Your task to perform on an android device: Open calendar and show me the second week of next month Image 0: 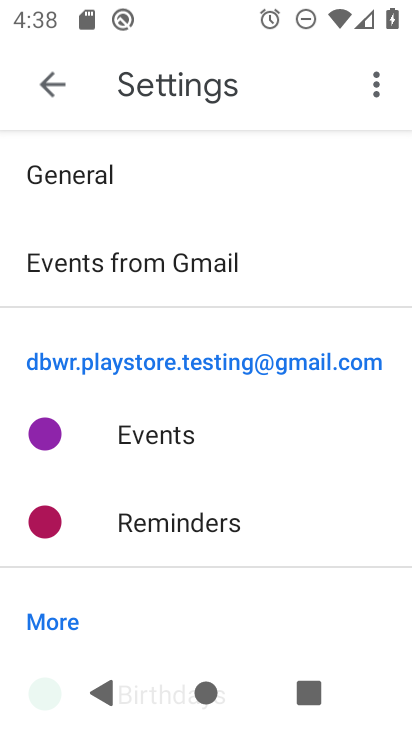
Step 0: press home button
Your task to perform on an android device: Open calendar and show me the second week of next month Image 1: 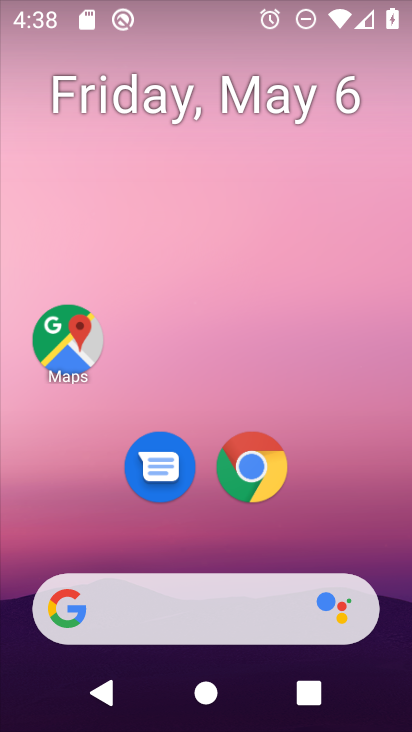
Step 1: drag from (333, 494) to (284, 119)
Your task to perform on an android device: Open calendar and show me the second week of next month Image 2: 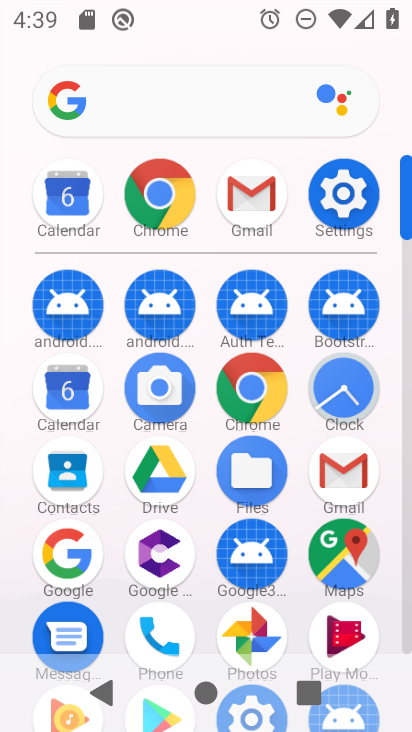
Step 2: click (64, 425)
Your task to perform on an android device: Open calendar and show me the second week of next month Image 3: 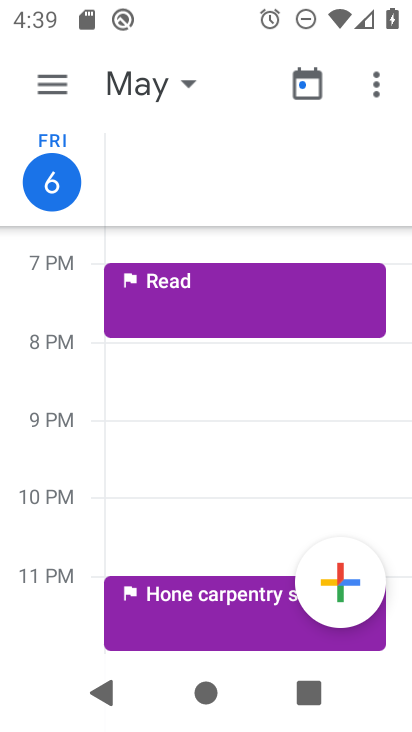
Step 3: click (63, 87)
Your task to perform on an android device: Open calendar and show me the second week of next month Image 4: 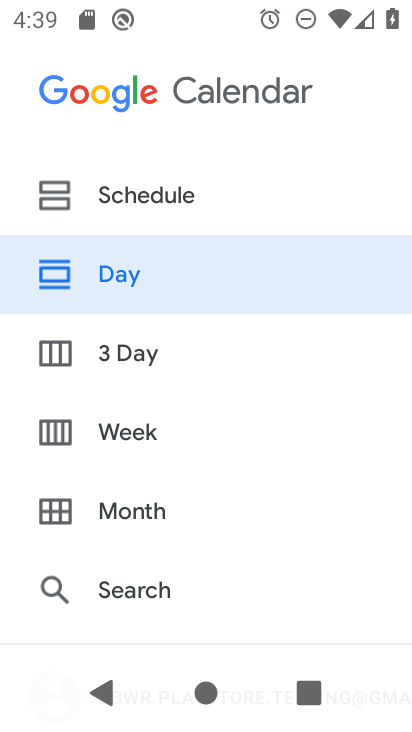
Step 4: click (134, 437)
Your task to perform on an android device: Open calendar and show me the second week of next month Image 5: 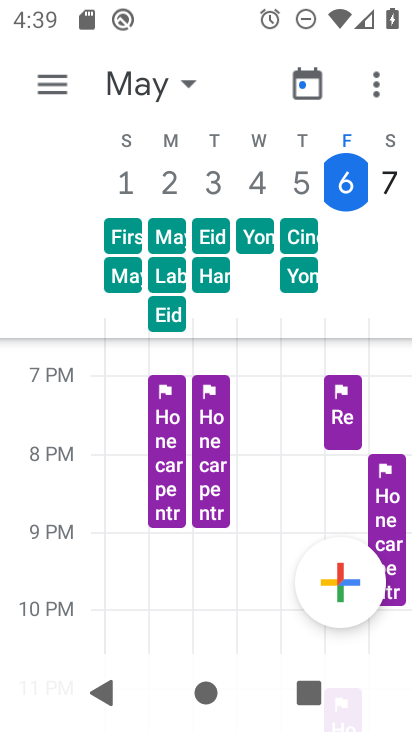
Step 5: click (144, 93)
Your task to perform on an android device: Open calendar and show me the second week of next month Image 6: 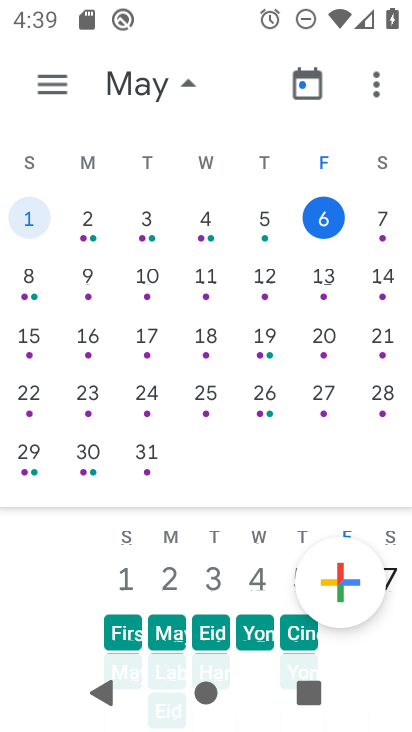
Step 6: drag from (379, 285) to (0, 336)
Your task to perform on an android device: Open calendar and show me the second week of next month Image 7: 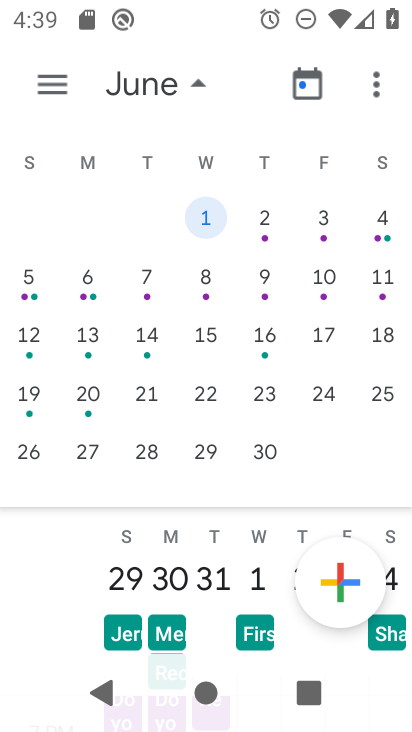
Step 7: click (22, 333)
Your task to perform on an android device: Open calendar and show me the second week of next month Image 8: 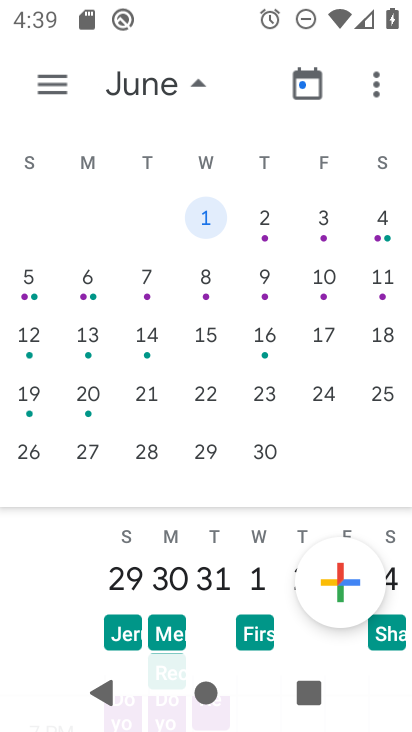
Step 8: click (22, 333)
Your task to perform on an android device: Open calendar and show me the second week of next month Image 9: 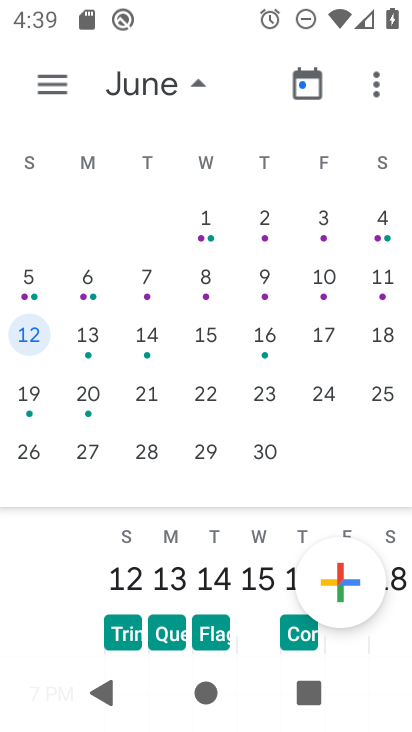
Step 9: task complete